Your task to perform on an android device: find photos in the google photos app Image 0: 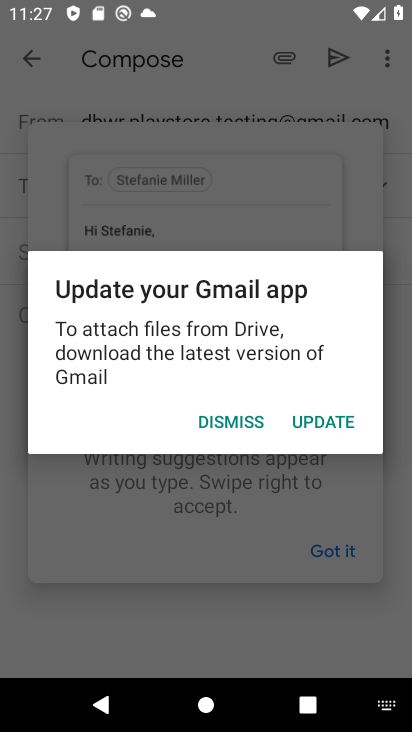
Step 0: press home button
Your task to perform on an android device: find photos in the google photos app Image 1: 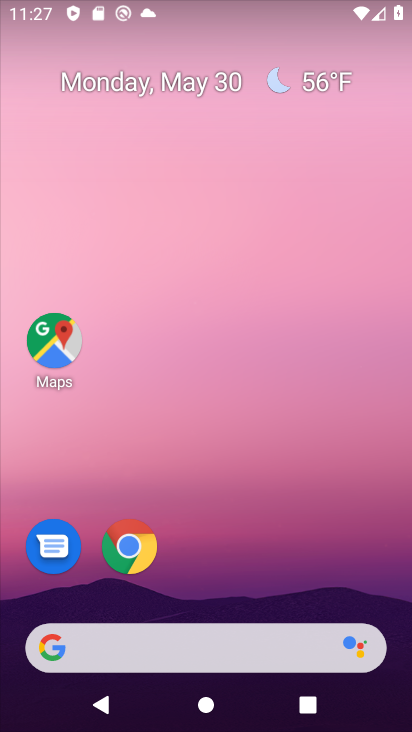
Step 1: drag from (251, 581) to (239, 157)
Your task to perform on an android device: find photos in the google photos app Image 2: 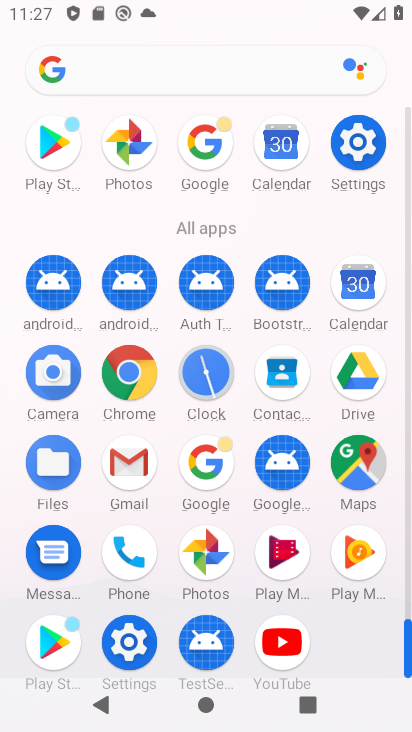
Step 2: click (132, 141)
Your task to perform on an android device: find photos in the google photos app Image 3: 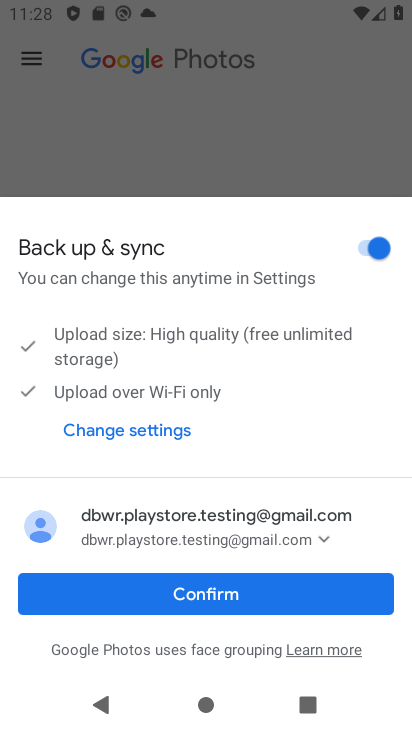
Step 3: click (230, 588)
Your task to perform on an android device: find photos in the google photos app Image 4: 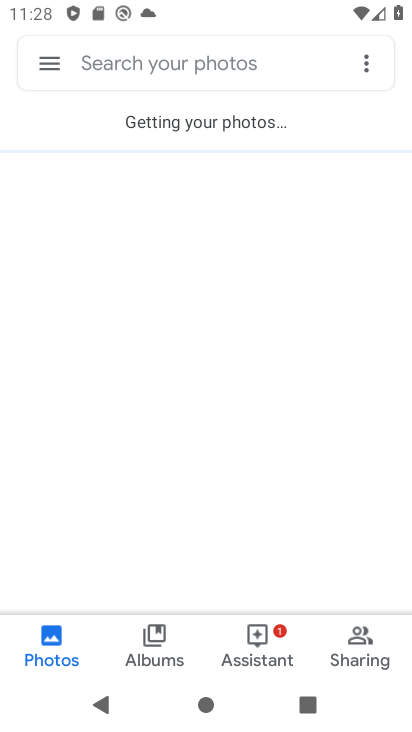
Step 4: click (158, 633)
Your task to perform on an android device: find photos in the google photos app Image 5: 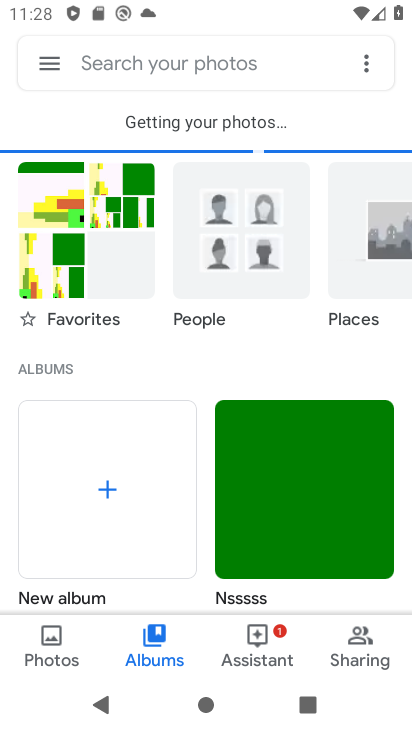
Step 5: click (93, 188)
Your task to perform on an android device: find photos in the google photos app Image 6: 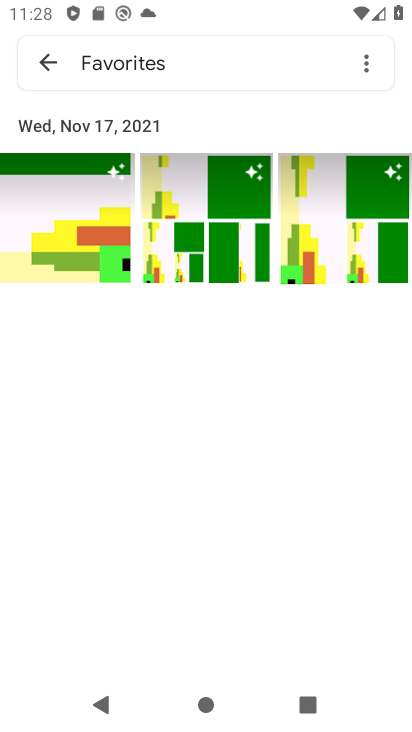
Step 6: task complete